Your task to perform on an android device: toggle pop-ups in chrome Image 0: 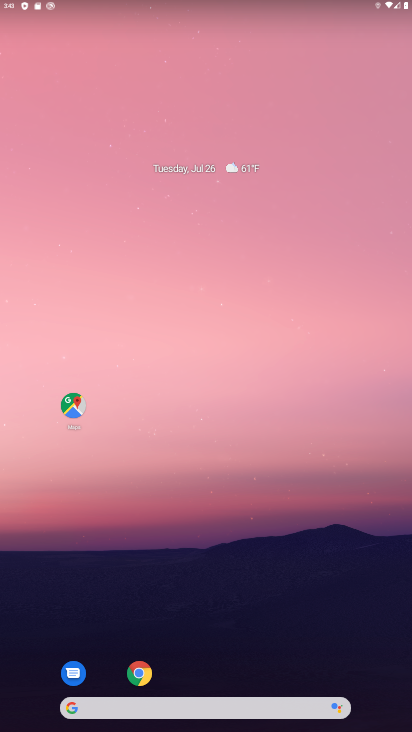
Step 0: click (135, 667)
Your task to perform on an android device: toggle pop-ups in chrome Image 1: 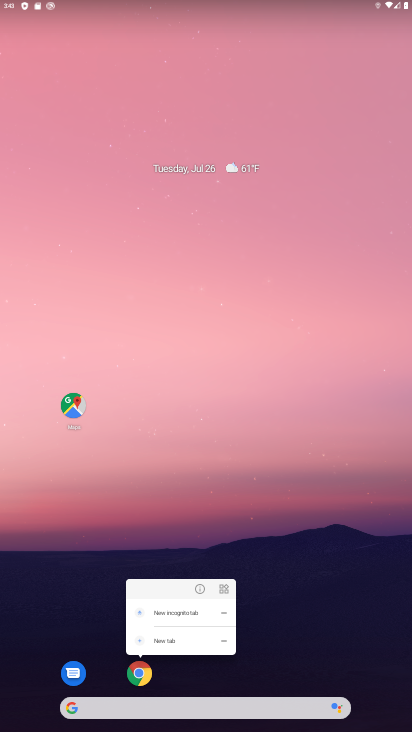
Step 1: click (139, 673)
Your task to perform on an android device: toggle pop-ups in chrome Image 2: 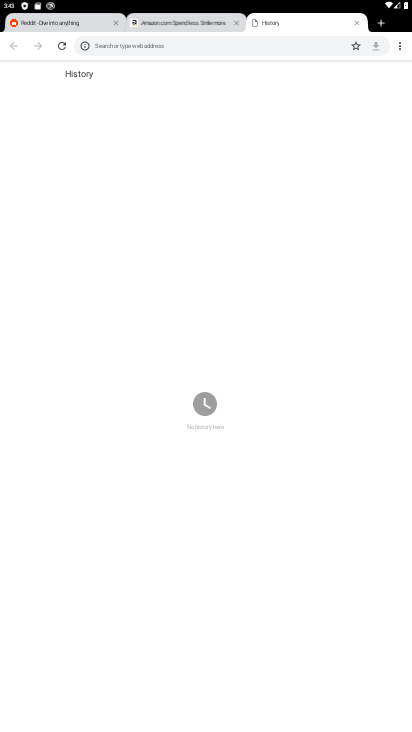
Step 2: click (400, 44)
Your task to perform on an android device: toggle pop-ups in chrome Image 3: 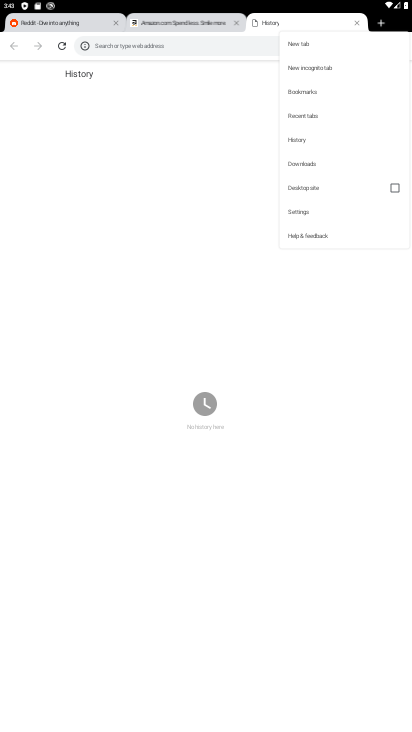
Step 3: click (312, 208)
Your task to perform on an android device: toggle pop-ups in chrome Image 4: 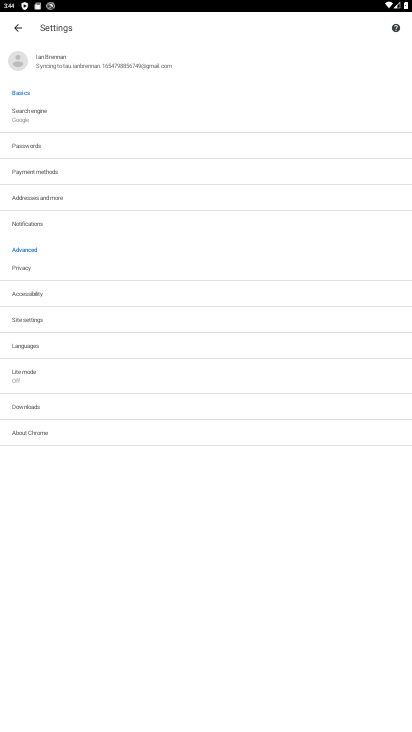
Step 4: click (51, 320)
Your task to perform on an android device: toggle pop-ups in chrome Image 5: 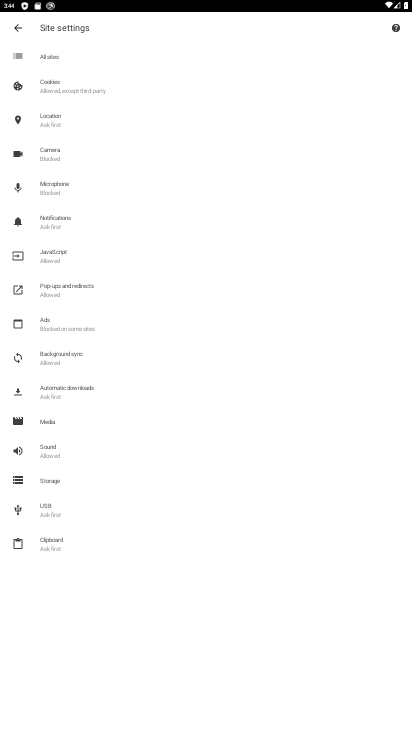
Step 5: click (79, 289)
Your task to perform on an android device: toggle pop-ups in chrome Image 6: 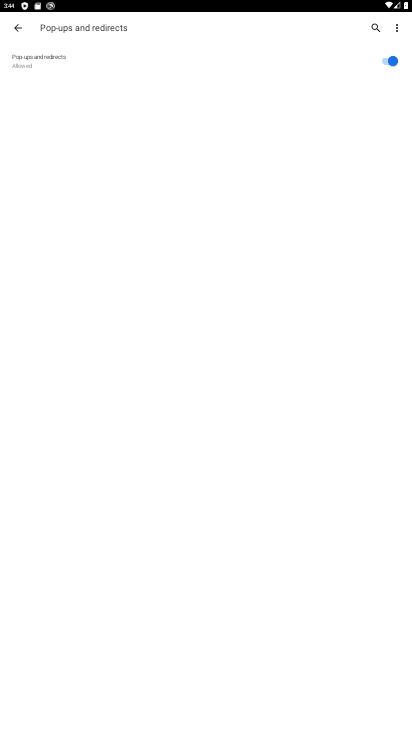
Step 6: click (389, 57)
Your task to perform on an android device: toggle pop-ups in chrome Image 7: 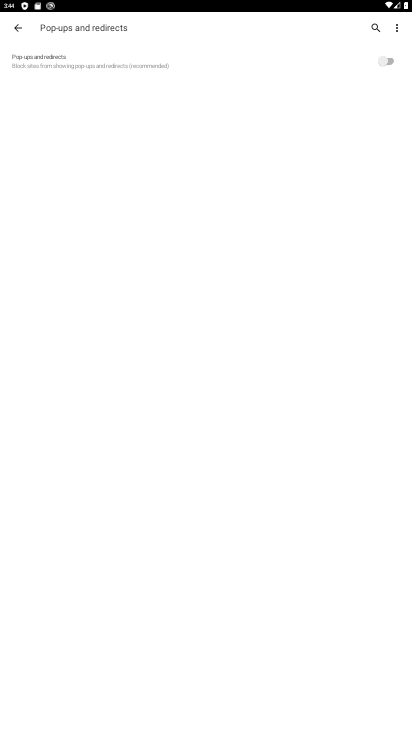
Step 7: task complete